Your task to perform on an android device: Check the news Image 0: 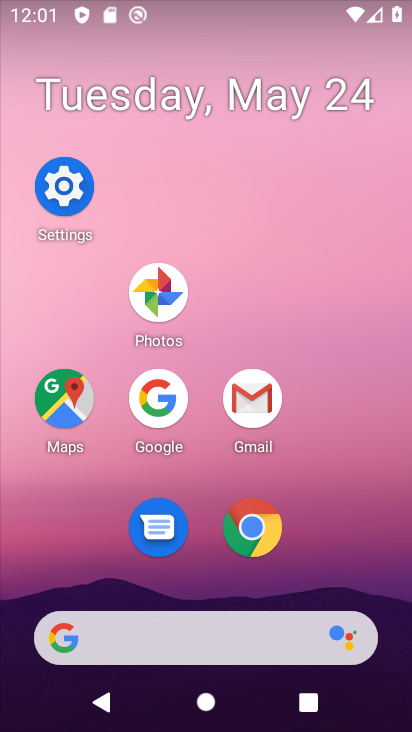
Step 0: drag from (331, 366) to (284, 42)
Your task to perform on an android device: Check the news Image 1: 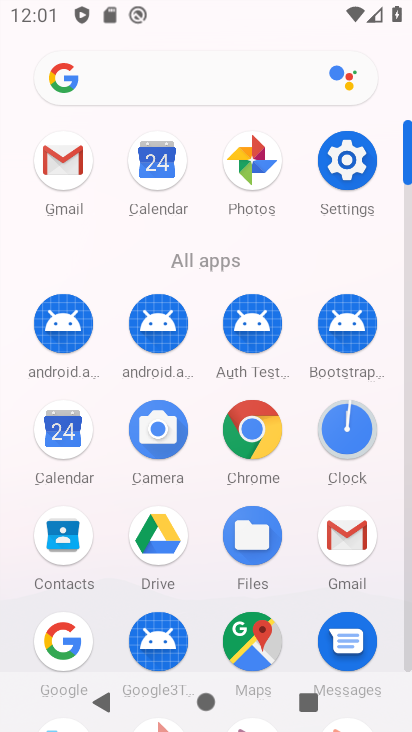
Step 1: click (57, 651)
Your task to perform on an android device: Check the news Image 2: 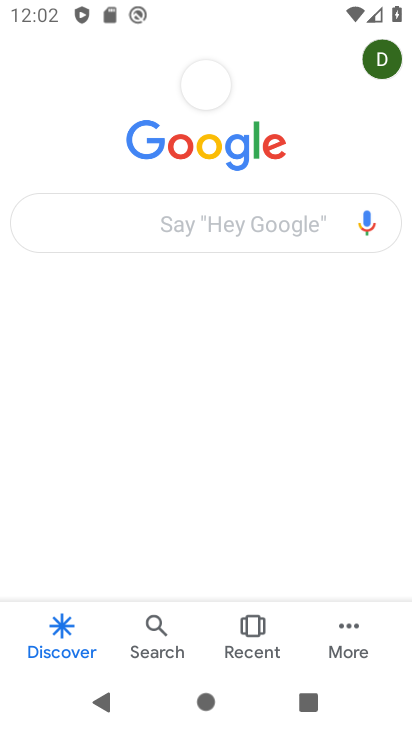
Step 2: click (171, 219)
Your task to perform on an android device: Check the news Image 3: 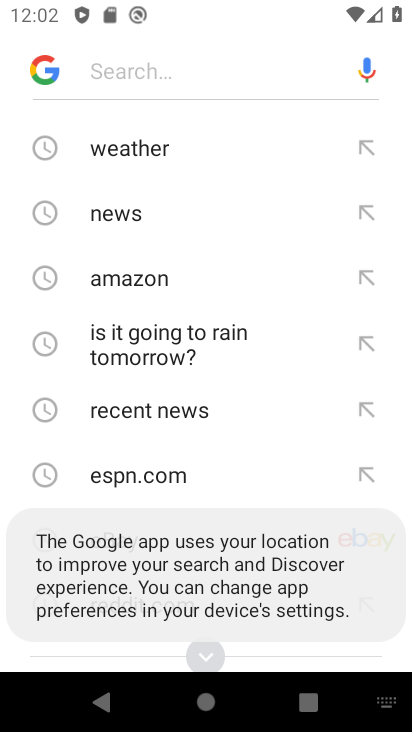
Step 3: click (170, 209)
Your task to perform on an android device: Check the news Image 4: 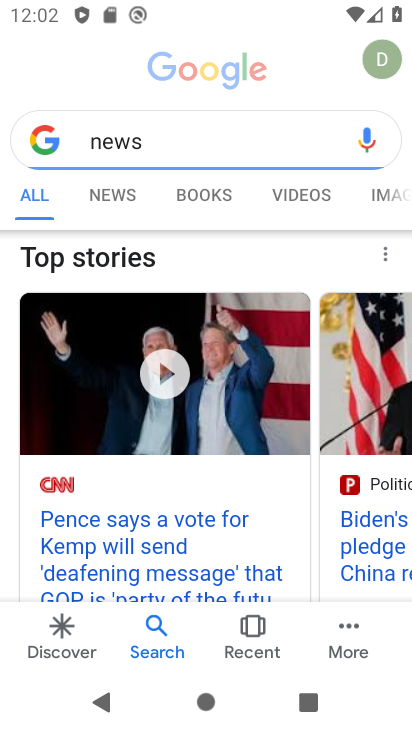
Step 4: task complete